Your task to perform on an android device: check battery use Image 0: 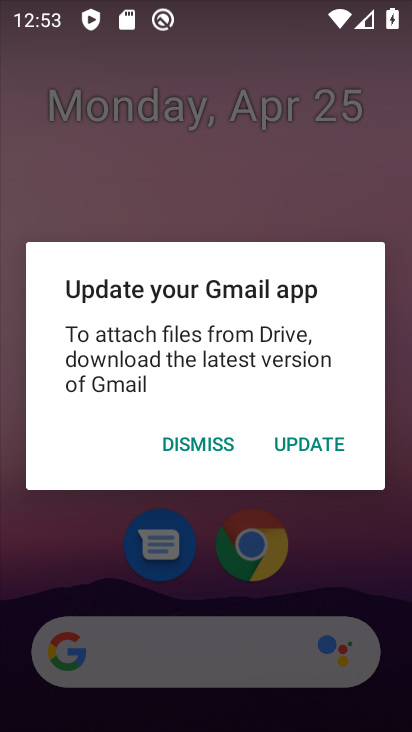
Step 0: press home button
Your task to perform on an android device: check battery use Image 1: 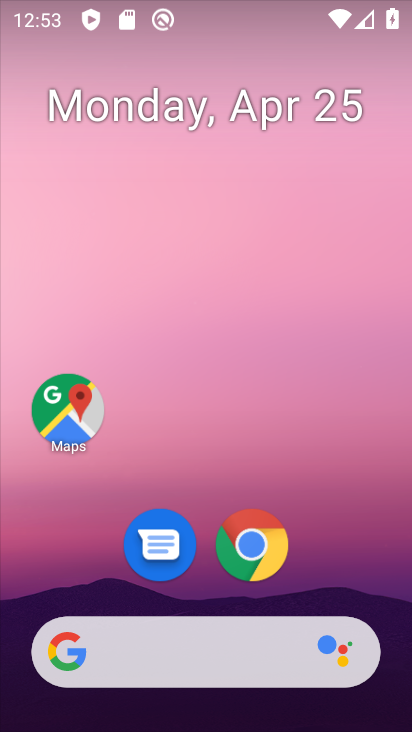
Step 1: drag from (337, 523) to (284, 70)
Your task to perform on an android device: check battery use Image 2: 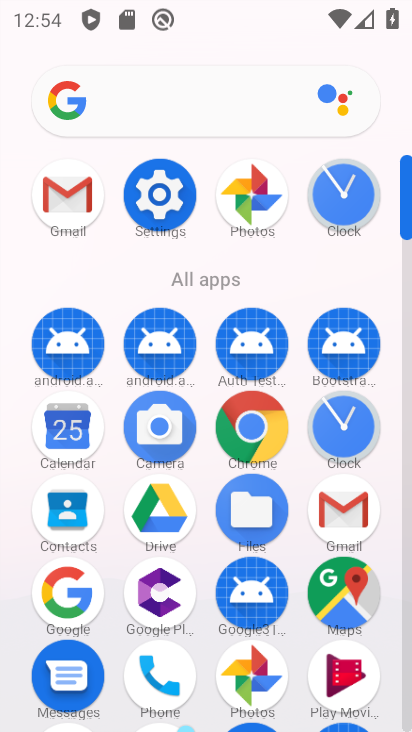
Step 2: click (160, 215)
Your task to perform on an android device: check battery use Image 3: 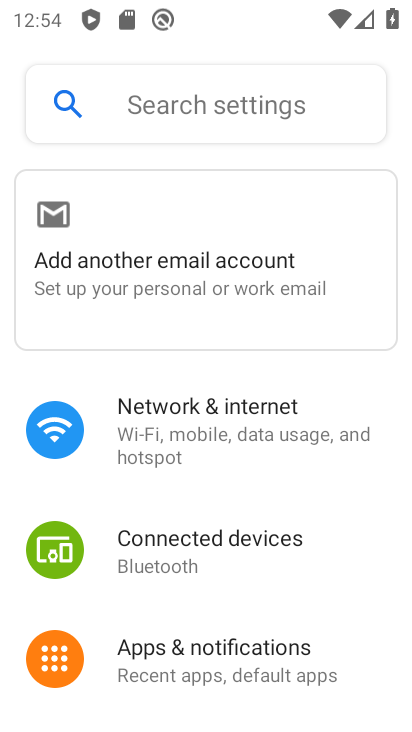
Step 3: drag from (226, 606) to (250, 278)
Your task to perform on an android device: check battery use Image 4: 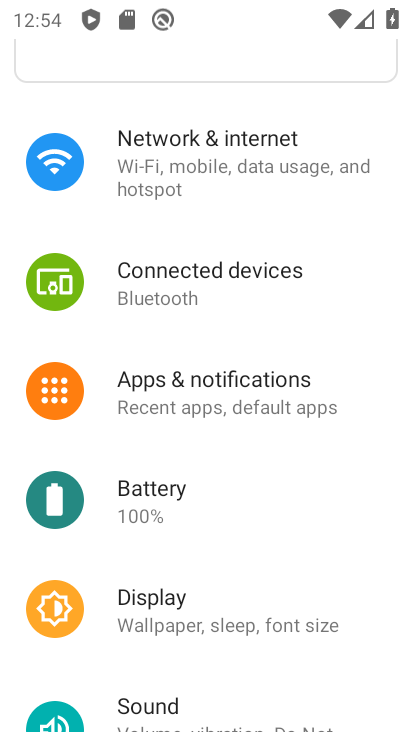
Step 4: click (137, 490)
Your task to perform on an android device: check battery use Image 5: 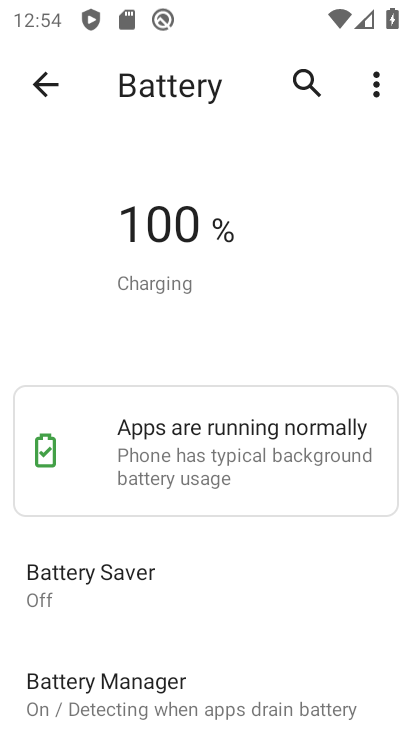
Step 5: click (379, 93)
Your task to perform on an android device: check battery use Image 6: 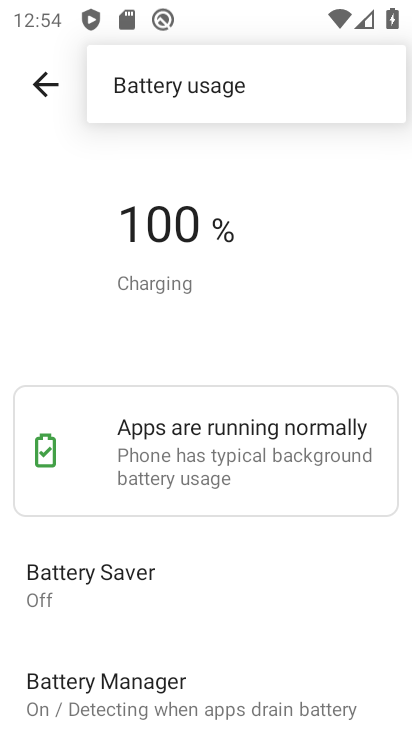
Step 6: click (255, 93)
Your task to perform on an android device: check battery use Image 7: 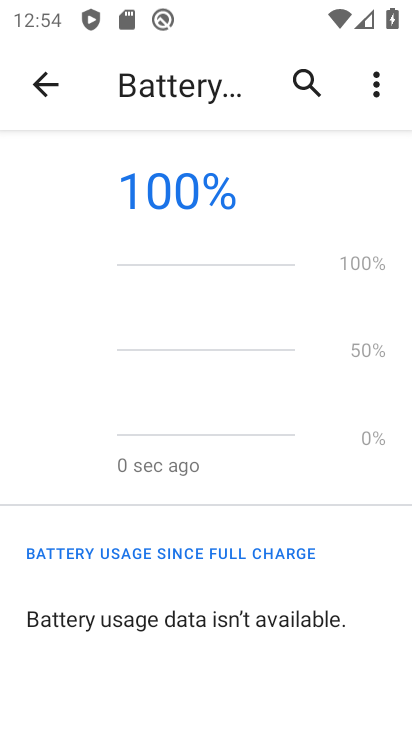
Step 7: task complete